Your task to perform on an android device: Open Android settings Image 0: 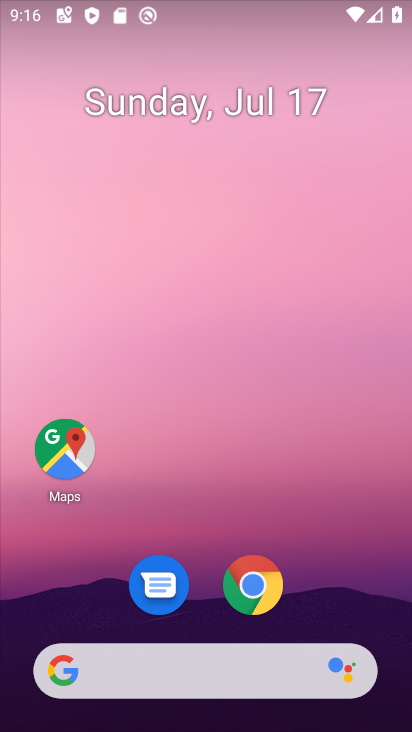
Step 0: drag from (314, 545) to (262, 27)
Your task to perform on an android device: Open Android settings Image 1: 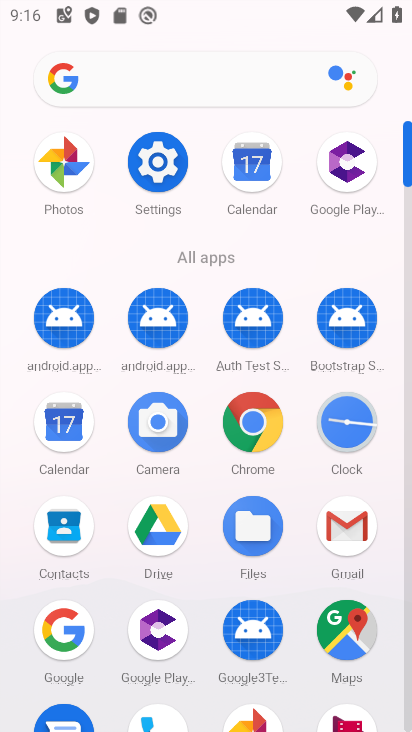
Step 1: click (162, 162)
Your task to perform on an android device: Open Android settings Image 2: 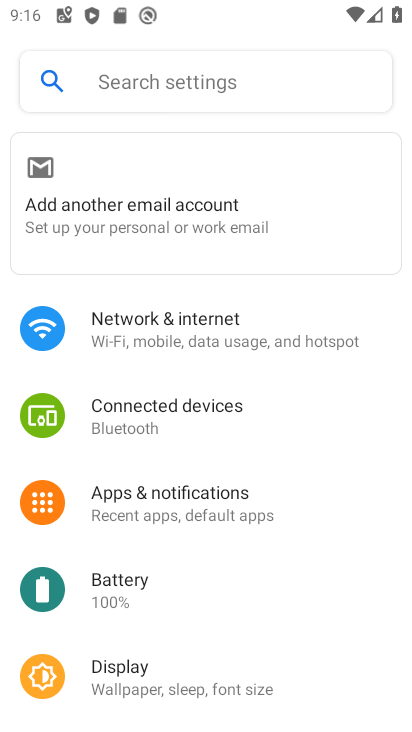
Step 2: drag from (176, 619) to (183, 98)
Your task to perform on an android device: Open Android settings Image 3: 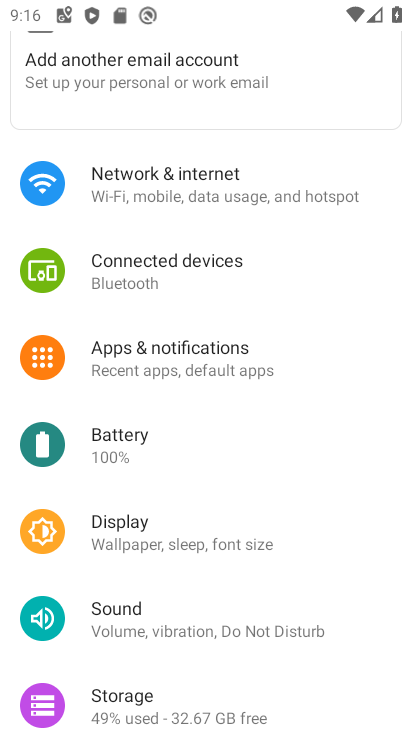
Step 3: drag from (214, 638) to (224, 39)
Your task to perform on an android device: Open Android settings Image 4: 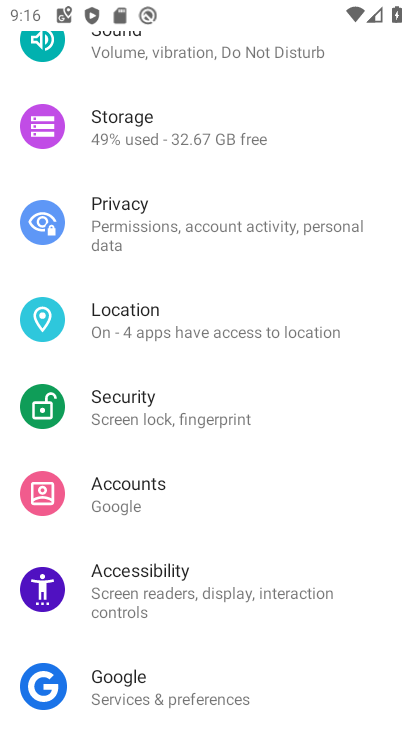
Step 4: drag from (210, 481) to (193, 145)
Your task to perform on an android device: Open Android settings Image 5: 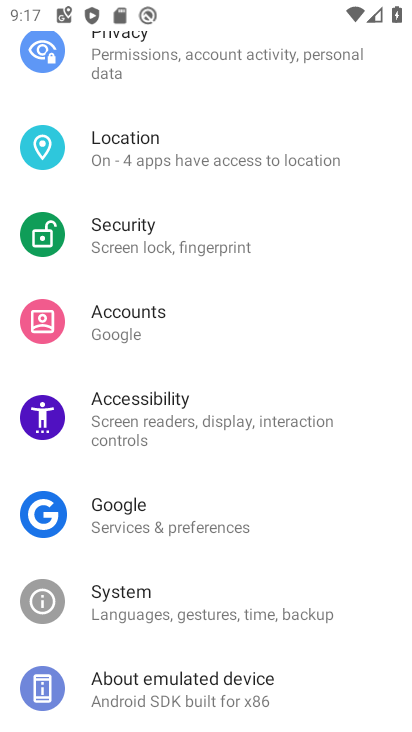
Step 5: click (218, 705)
Your task to perform on an android device: Open Android settings Image 6: 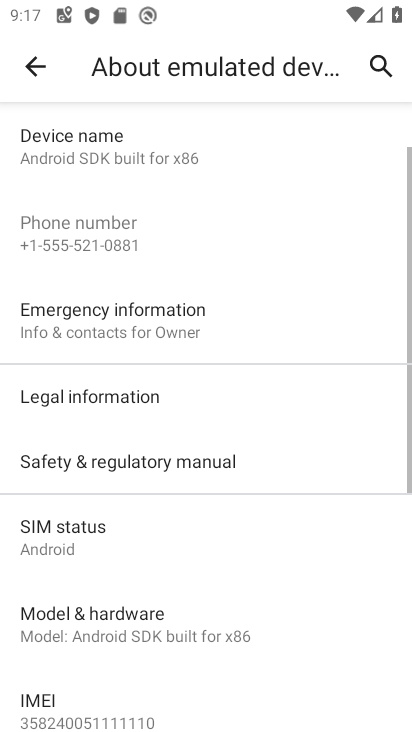
Step 6: task complete